Your task to perform on an android device: Search for a 3d printer on aliexpress Image 0: 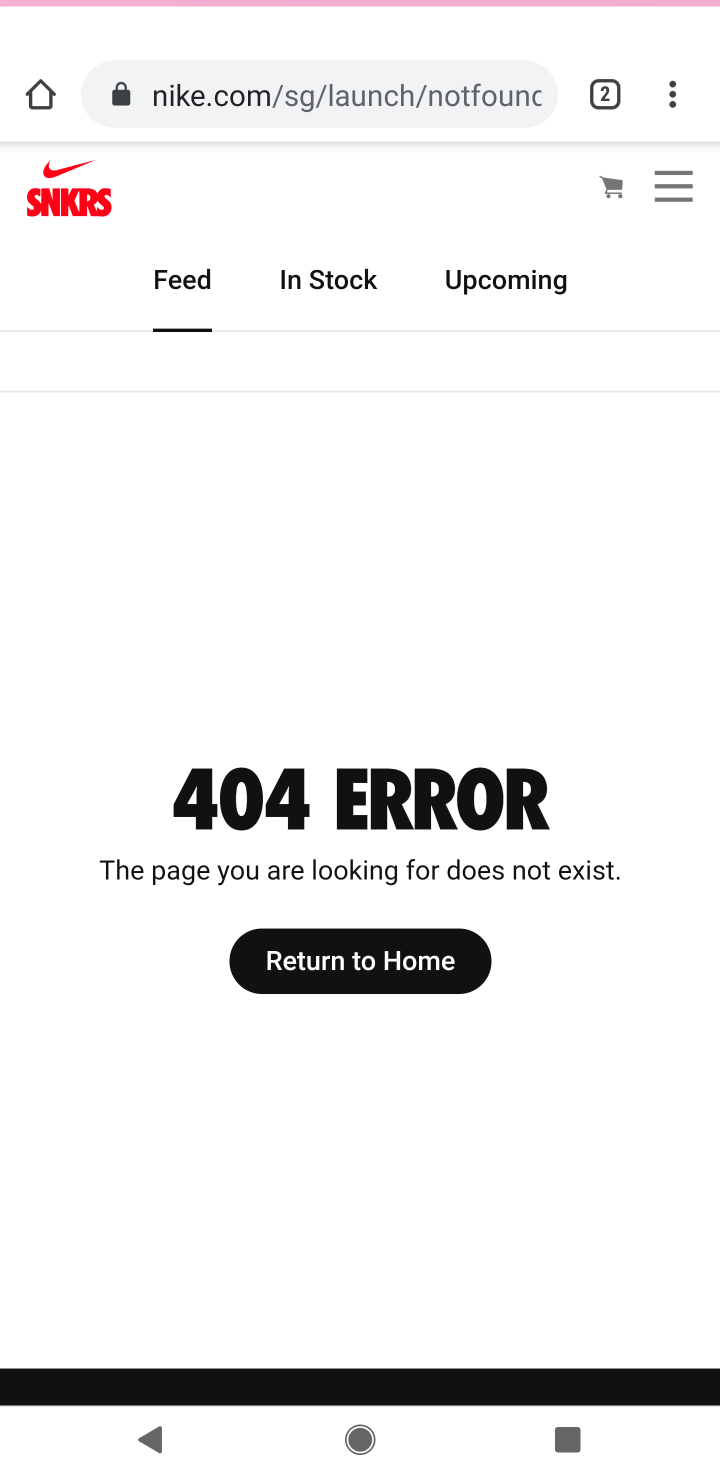
Step 0: press home button
Your task to perform on an android device: Search for a 3d printer on aliexpress Image 1: 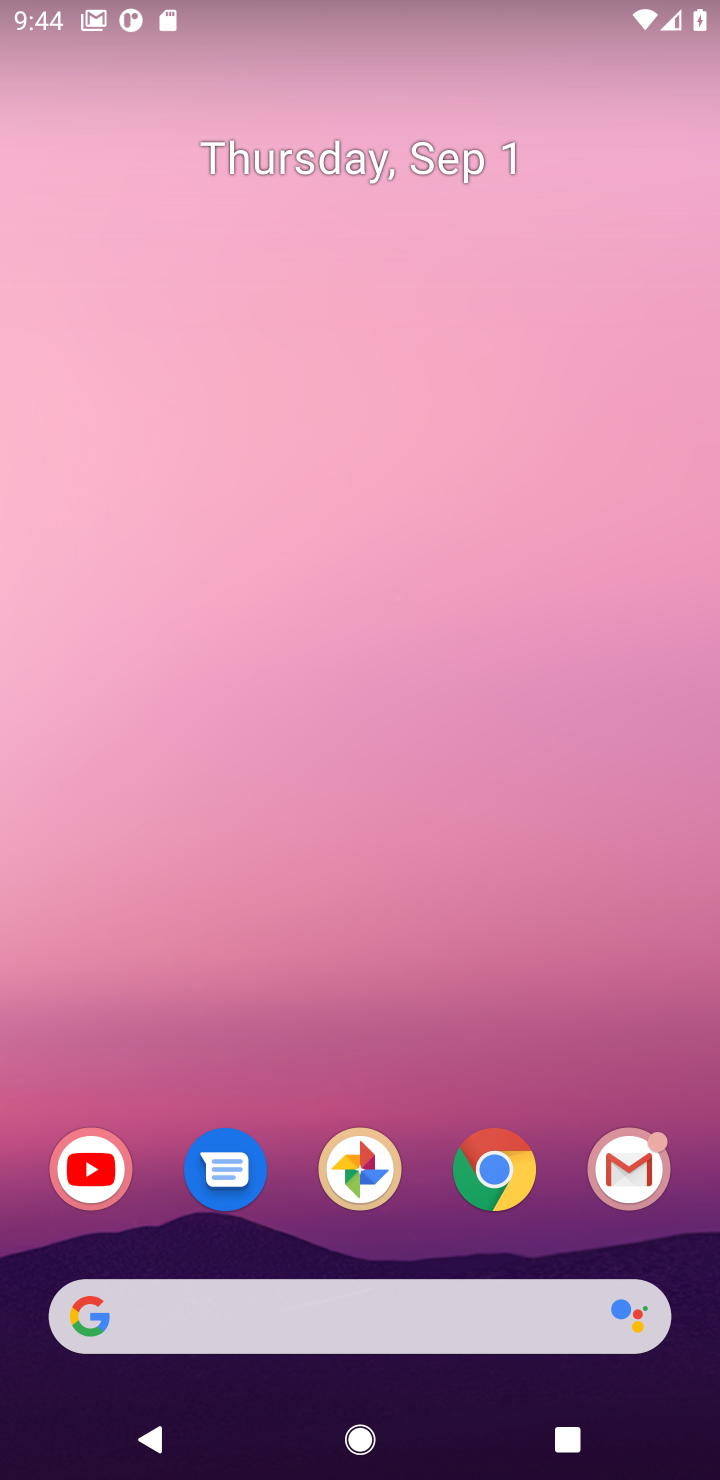
Step 1: drag from (414, 1124) to (474, 77)
Your task to perform on an android device: Search for a 3d printer on aliexpress Image 2: 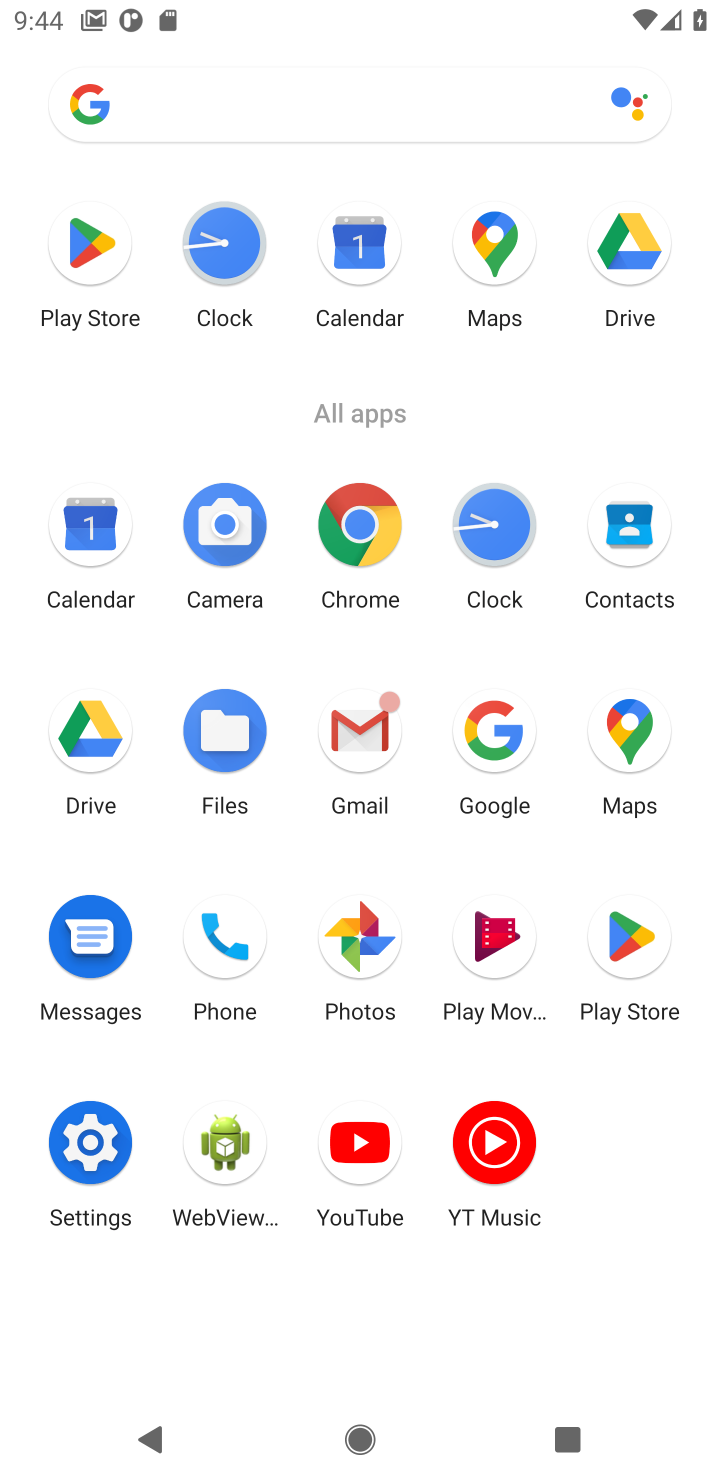
Step 2: click (361, 520)
Your task to perform on an android device: Search for a 3d printer on aliexpress Image 3: 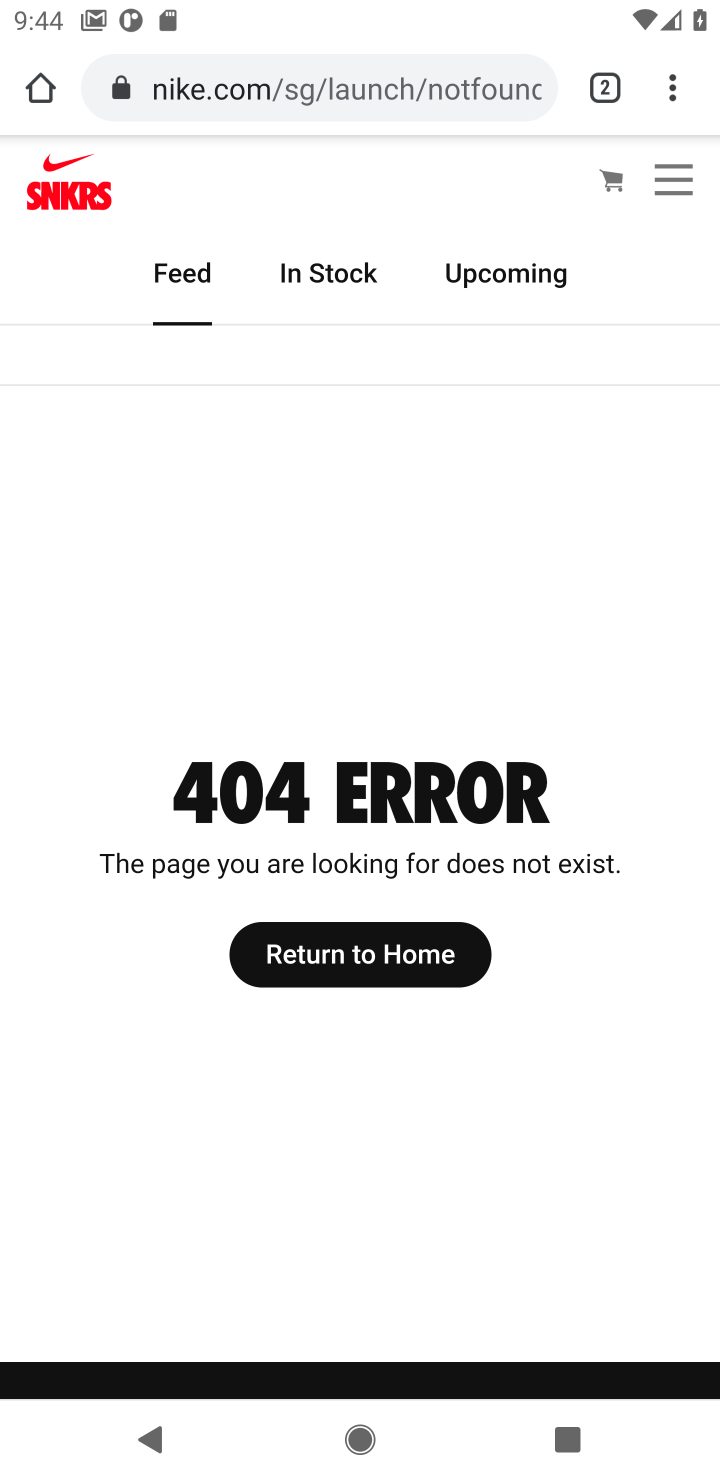
Step 3: click (431, 96)
Your task to perform on an android device: Search for a 3d printer on aliexpress Image 4: 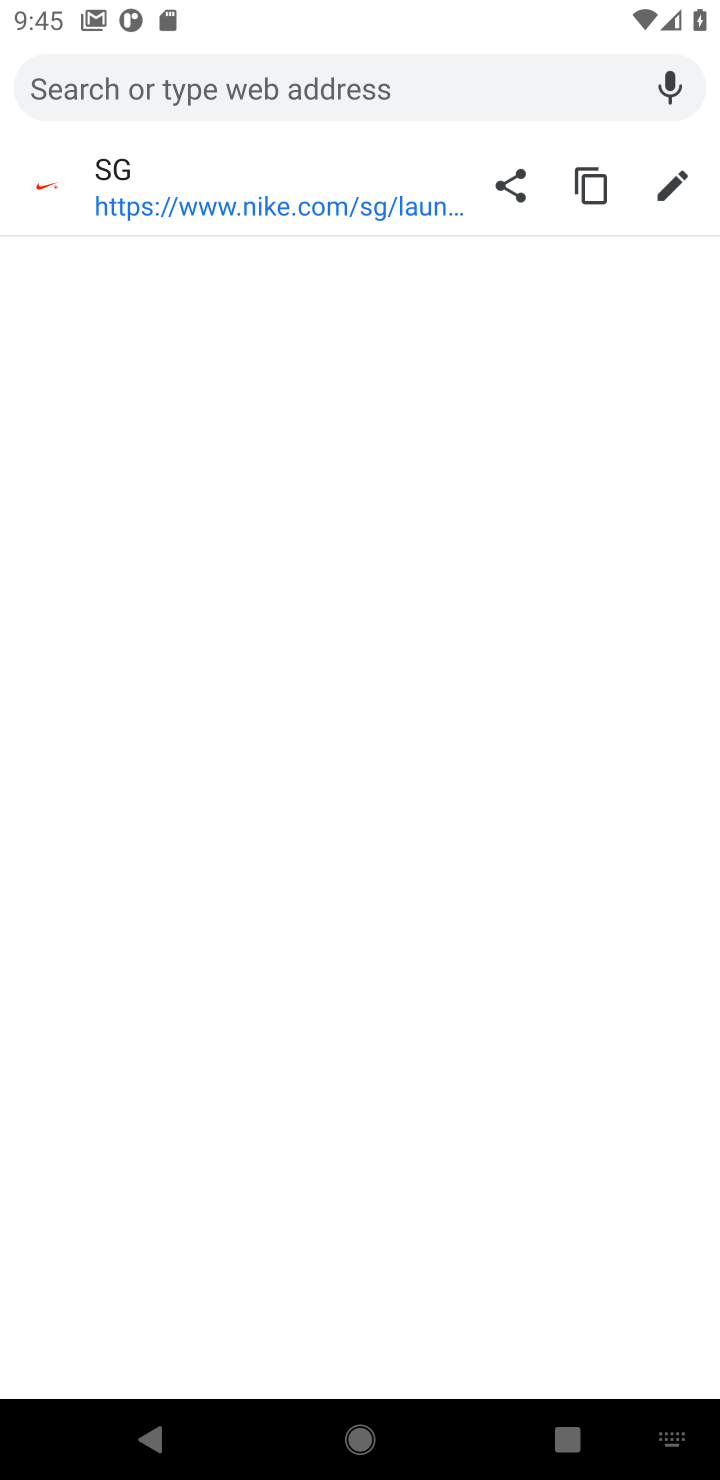
Step 4: type "3d printer on aliexpress"
Your task to perform on an android device: Search for a 3d printer on aliexpress Image 5: 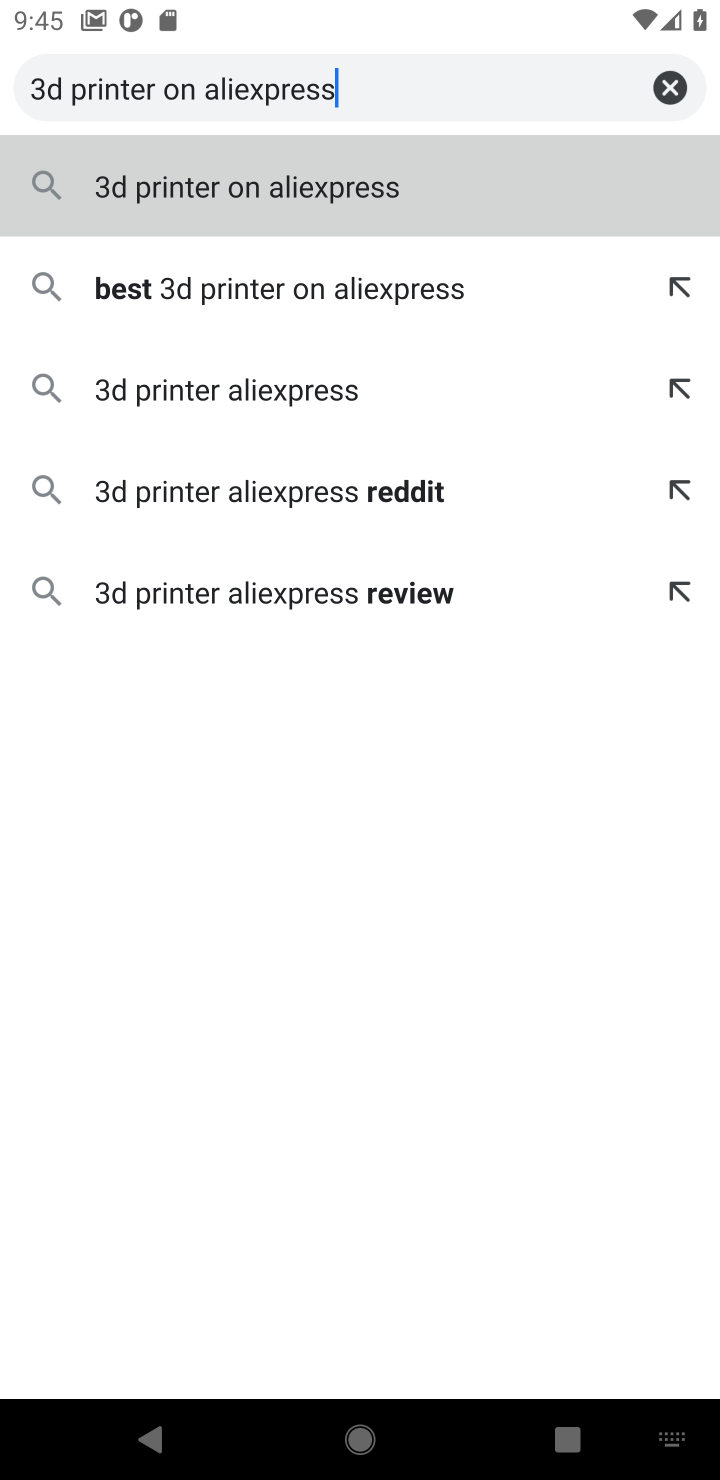
Step 5: click (315, 214)
Your task to perform on an android device: Search for a 3d printer on aliexpress Image 6: 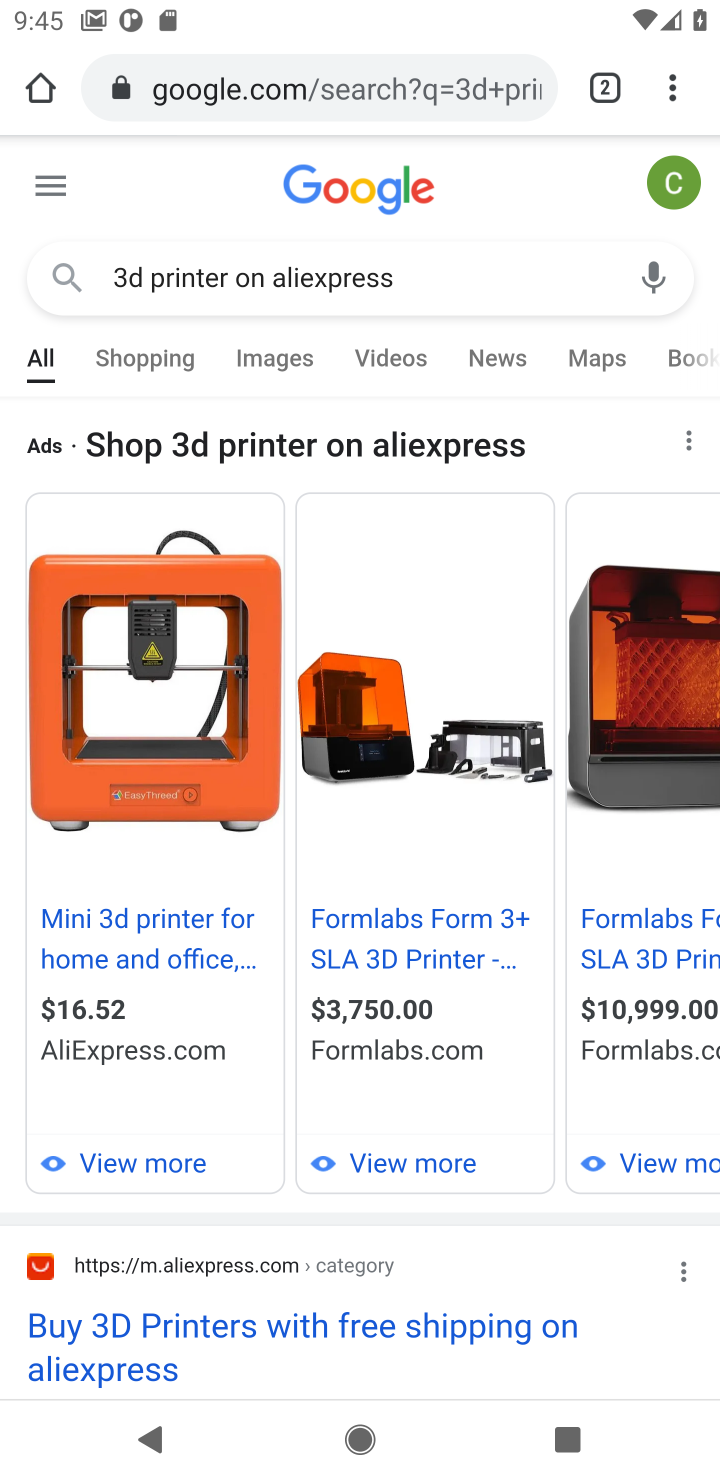
Step 6: drag from (286, 1215) to (444, 365)
Your task to perform on an android device: Search for a 3d printer on aliexpress Image 7: 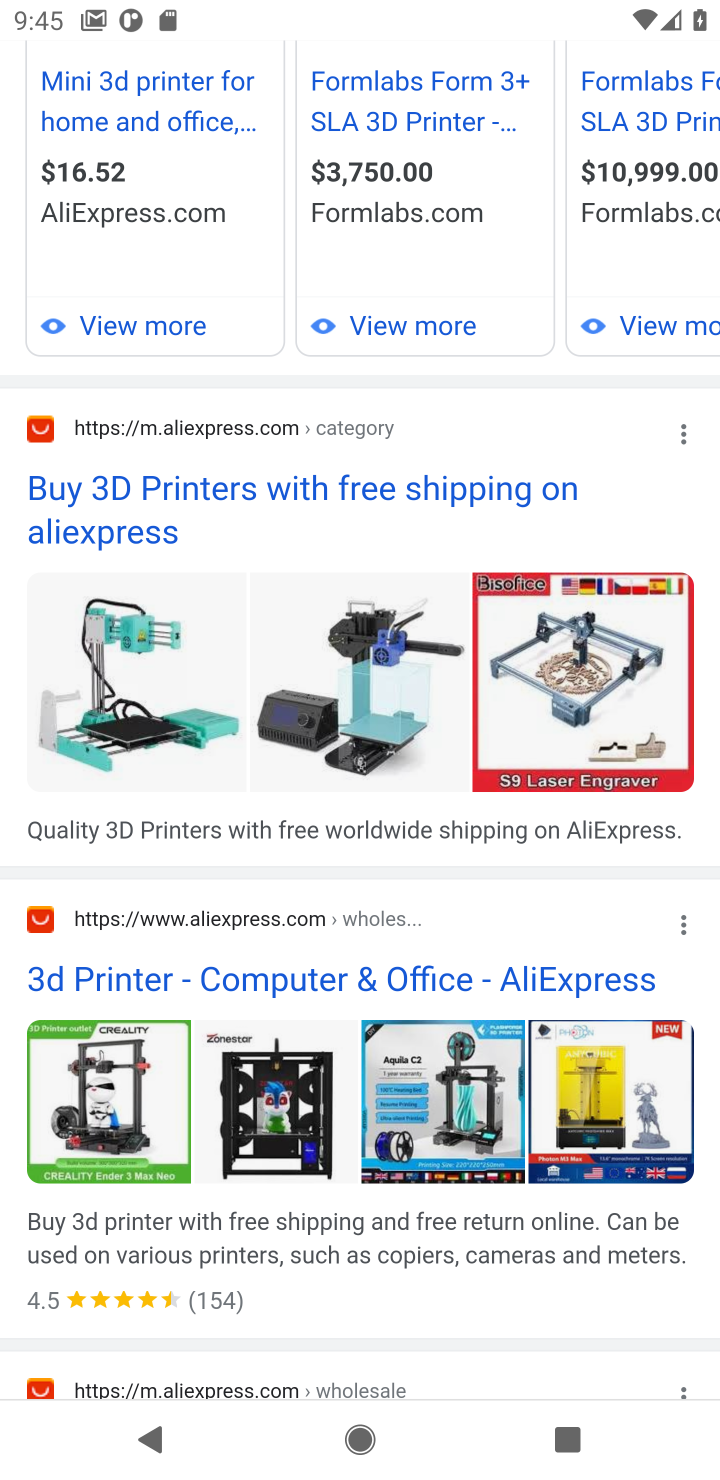
Step 7: click (275, 486)
Your task to perform on an android device: Search for a 3d printer on aliexpress Image 8: 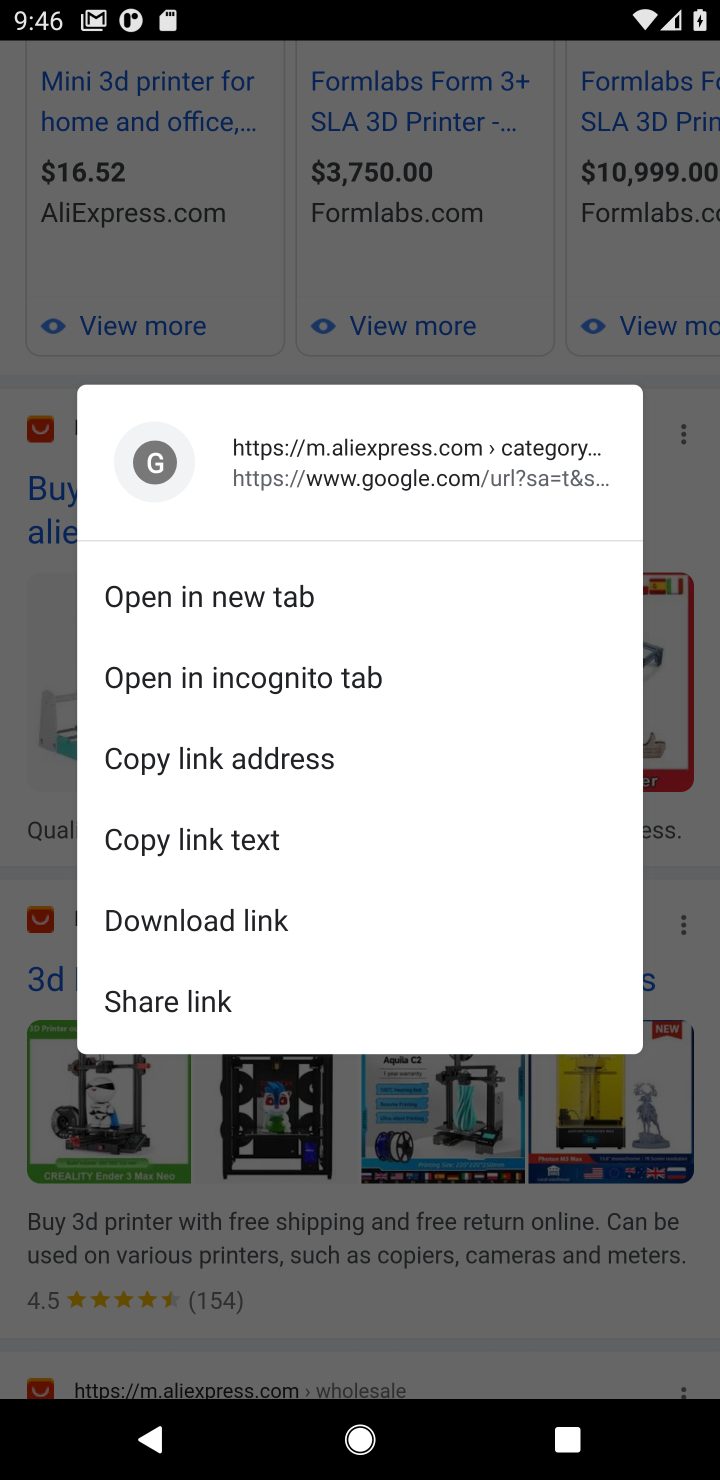
Step 8: click (27, 400)
Your task to perform on an android device: Search for a 3d printer on aliexpress Image 9: 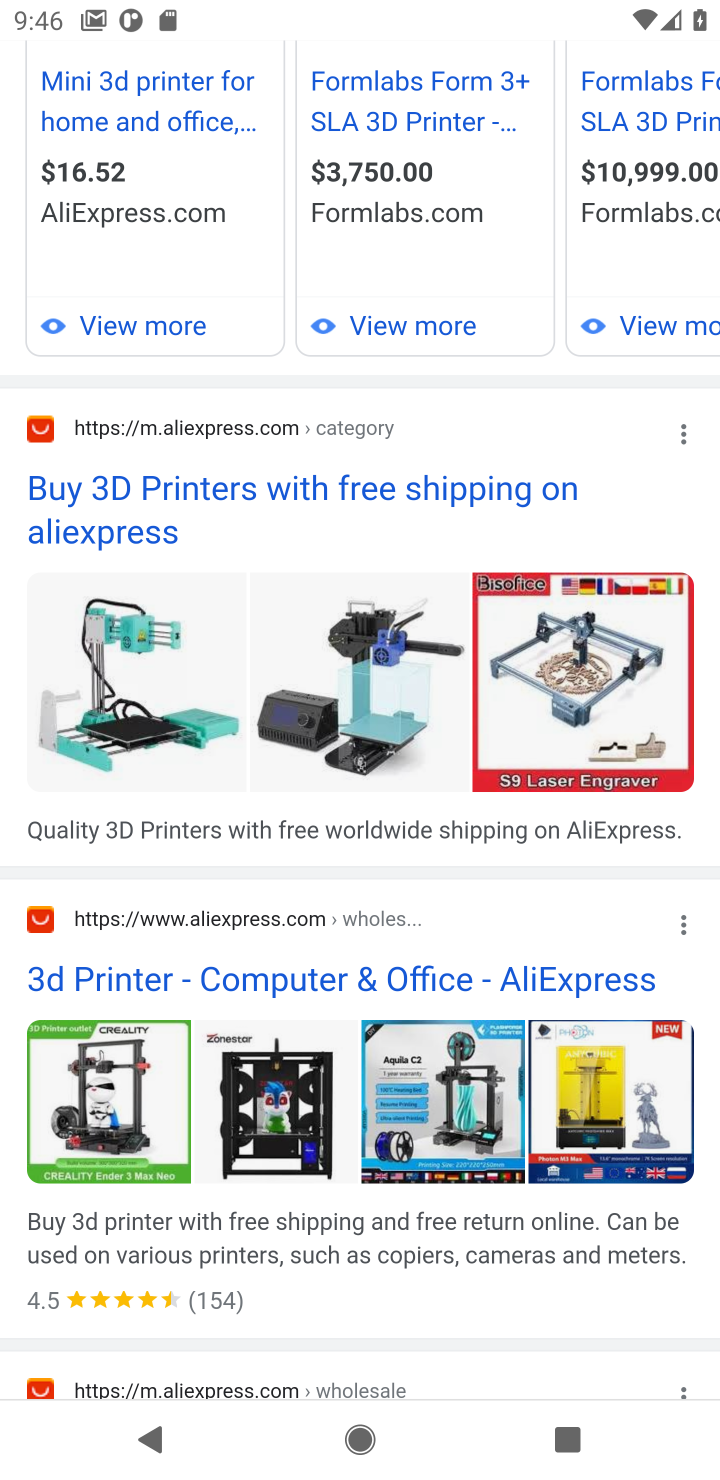
Step 9: click (176, 489)
Your task to perform on an android device: Search for a 3d printer on aliexpress Image 10: 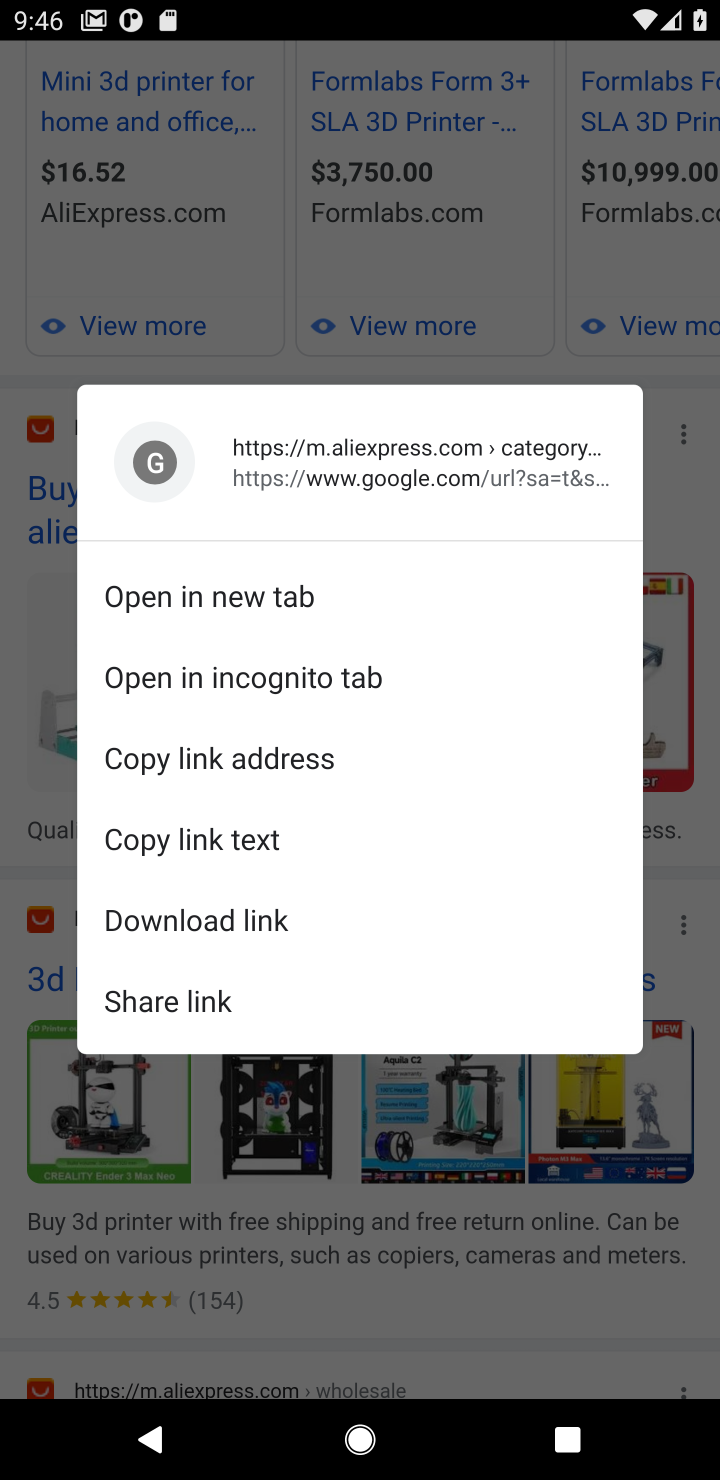
Step 10: click (6, 684)
Your task to perform on an android device: Search for a 3d printer on aliexpress Image 11: 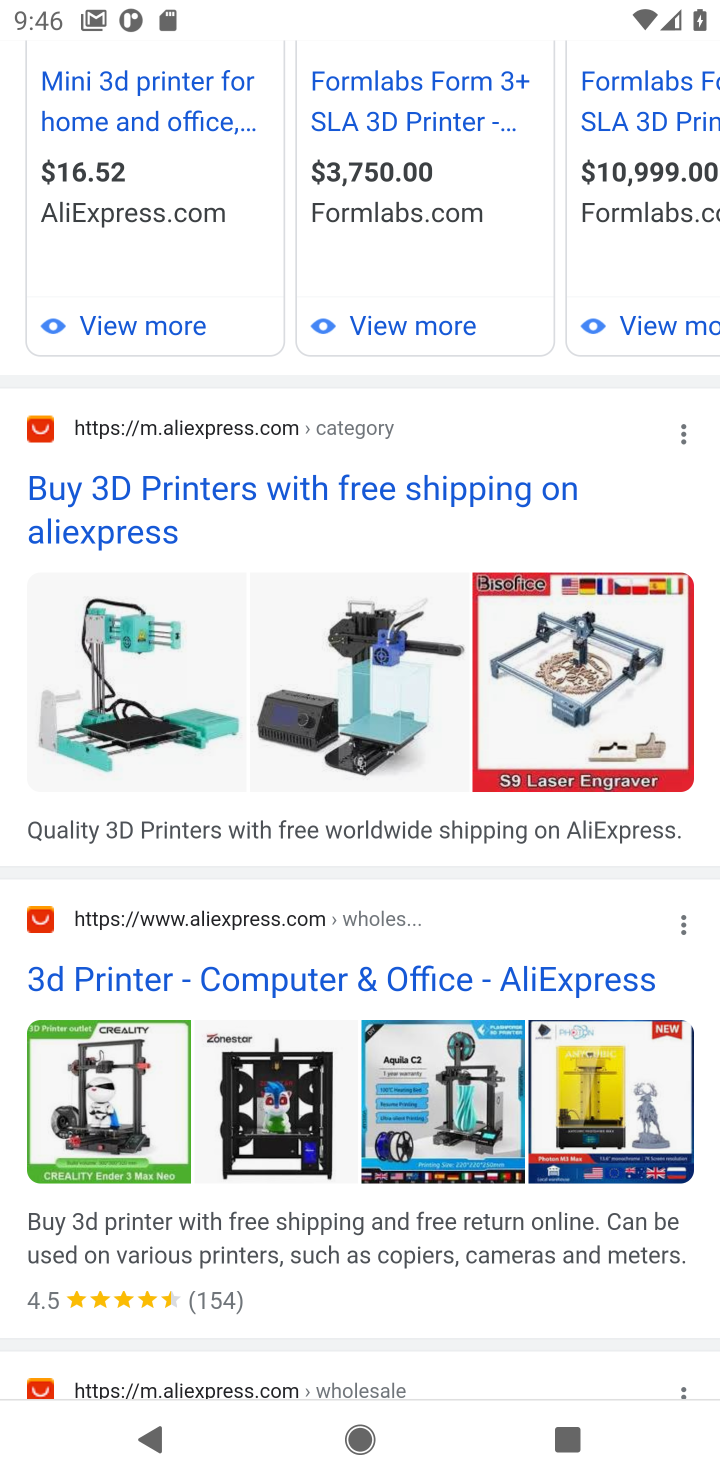
Step 11: click (95, 535)
Your task to perform on an android device: Search for a 3d printer on aliexpress Image 12: 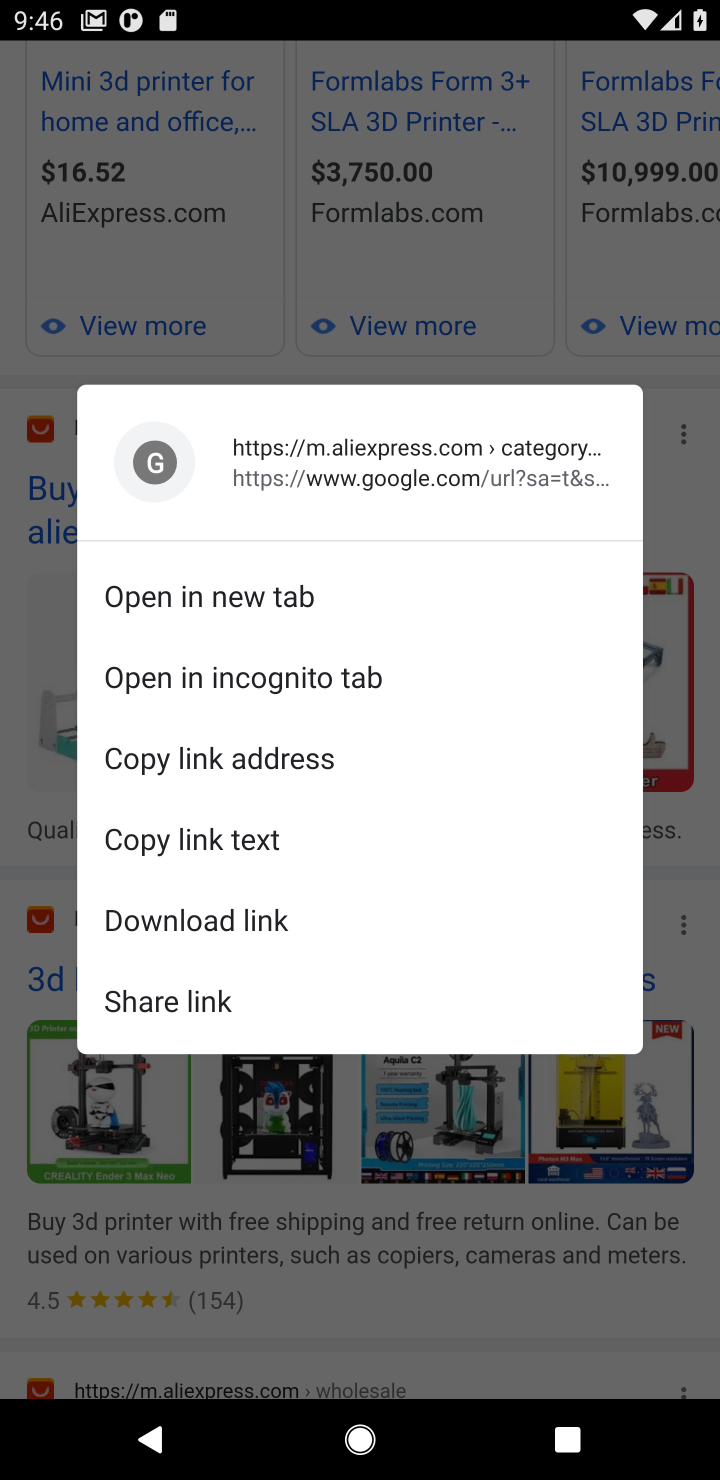
Step 12: click (8, 800)
Your task to perform on an android device: Search for a 3d printer on aliexpress Image 13: 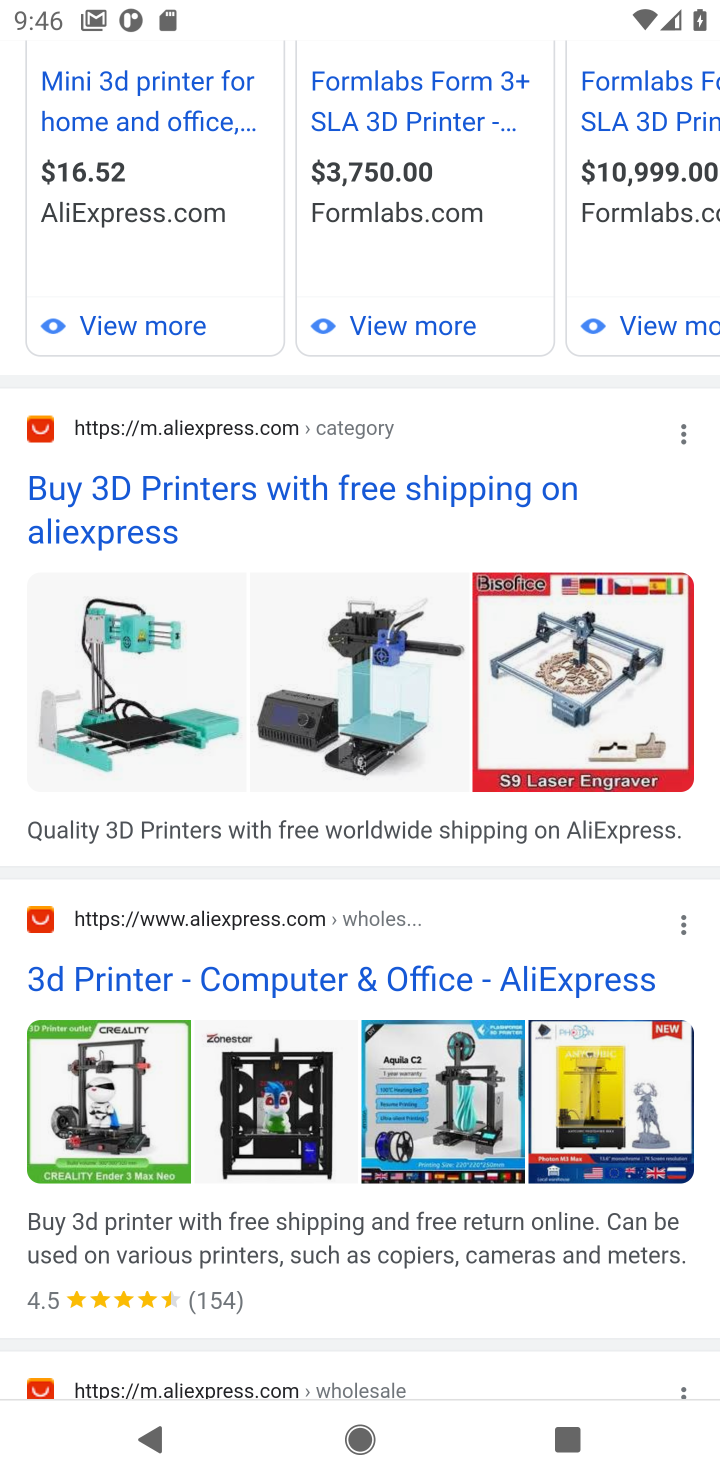
Step 13: click (82, 489)
Your task to perform on an android device: Search for a 3d printer on aliexpress Image 14: 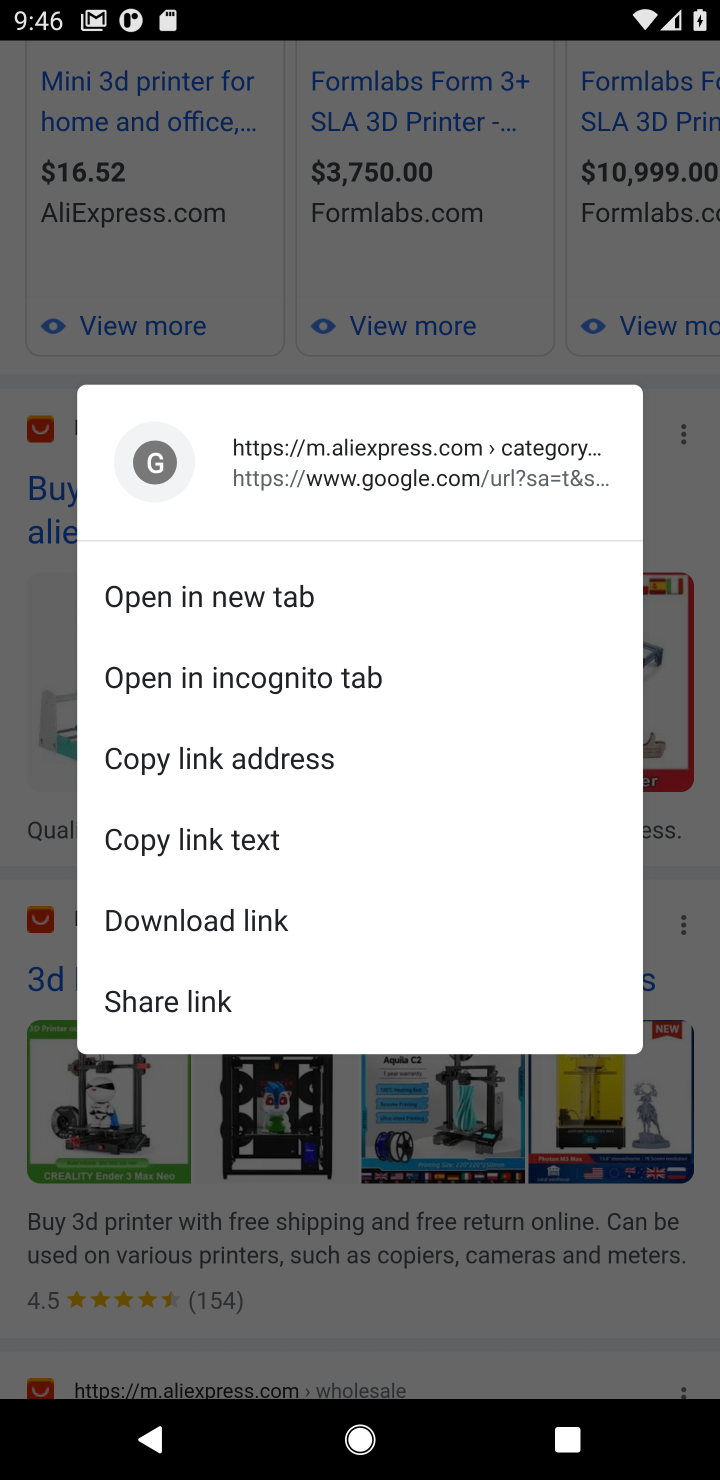
Step 14: click (259, 591)
Your task to perform on an android device: Search for a 3d printer on aliexpress Image 15: 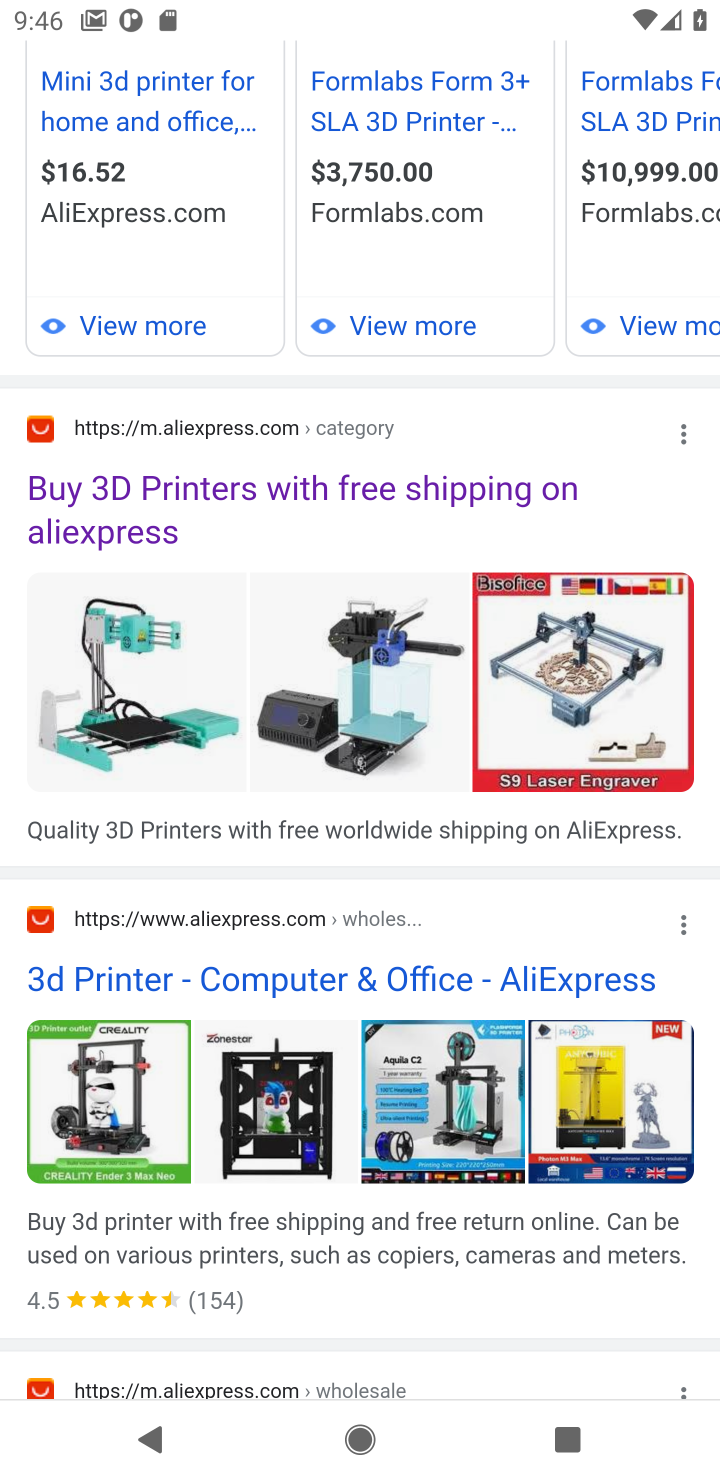
Step 15: click (279, 989)
Your task to perform on an android device: Search for a 3d printer on aliexpress Image 16: 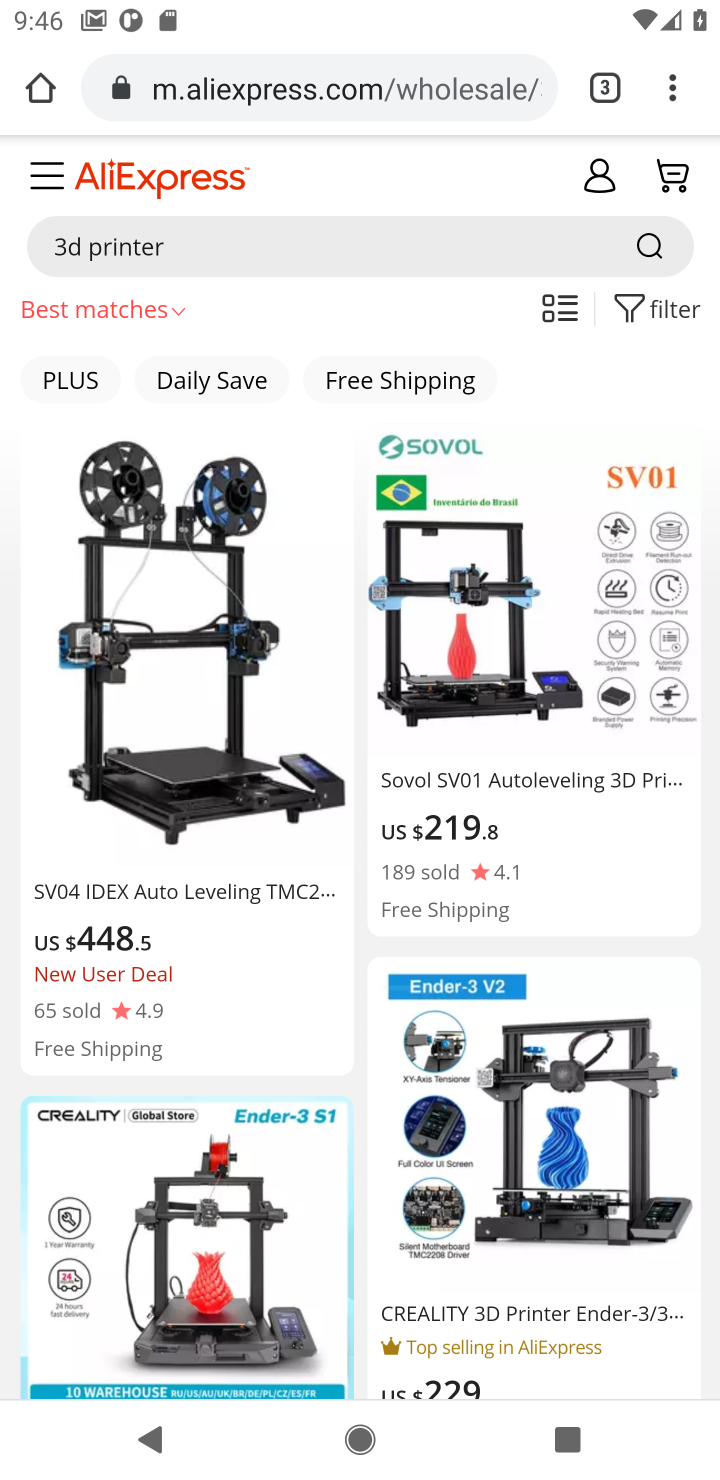
Step 16: drag from (361, 1174) to (409, 545)
Your task to perform on an android device: Search for a 3d printer on aliexpress Image 17: 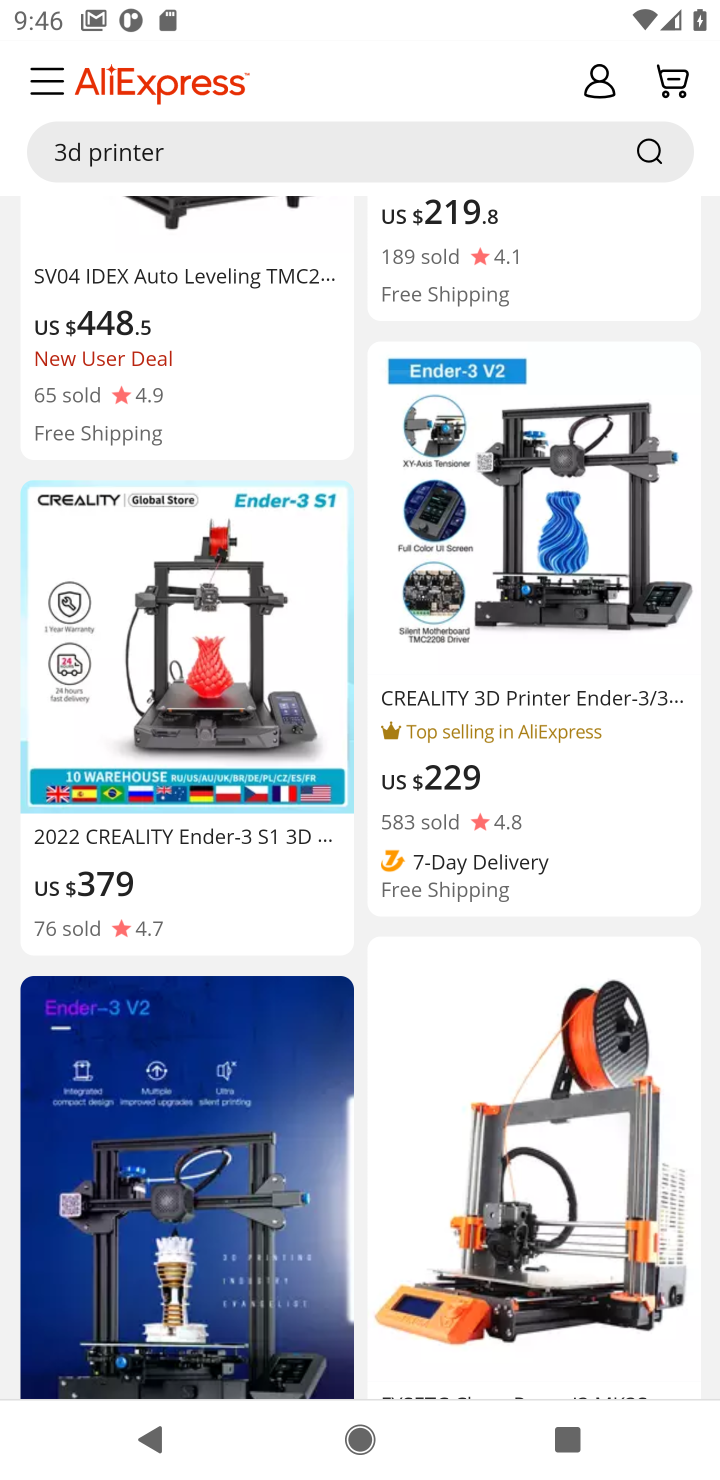
Step 17: drag from (371, 1243) to (464, 482)
Your task to perform on an android device: Search for a 3d printer on aliexpress Image 18: 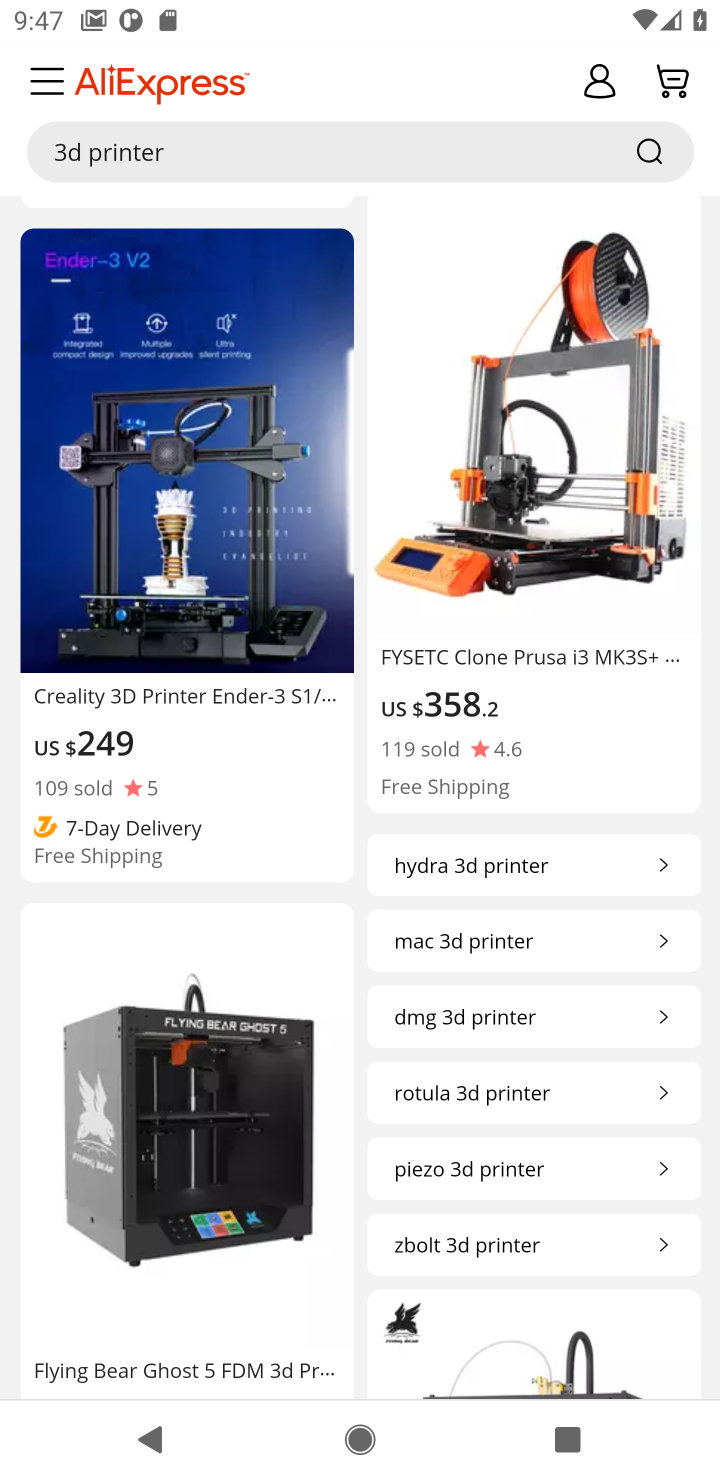
Step 18: drag from (361, 1276) to (381, 579)
Your task to perform on an android device: Search for a 3d printer on aliexpress Image 19: 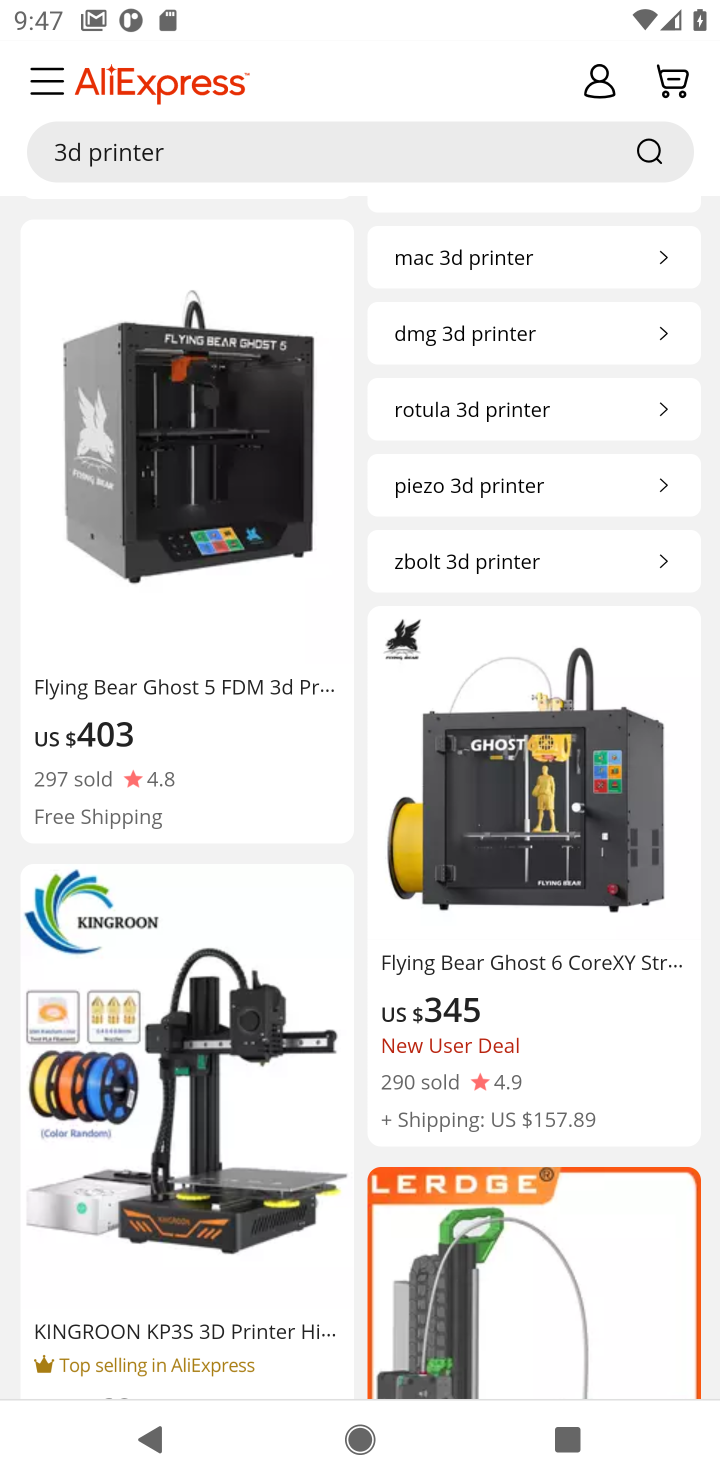
Step 19: drag from (370, 1158) to (376, 500)
Your task to perform on an android device: Search for a 3d printer on aliexpress Image 20: 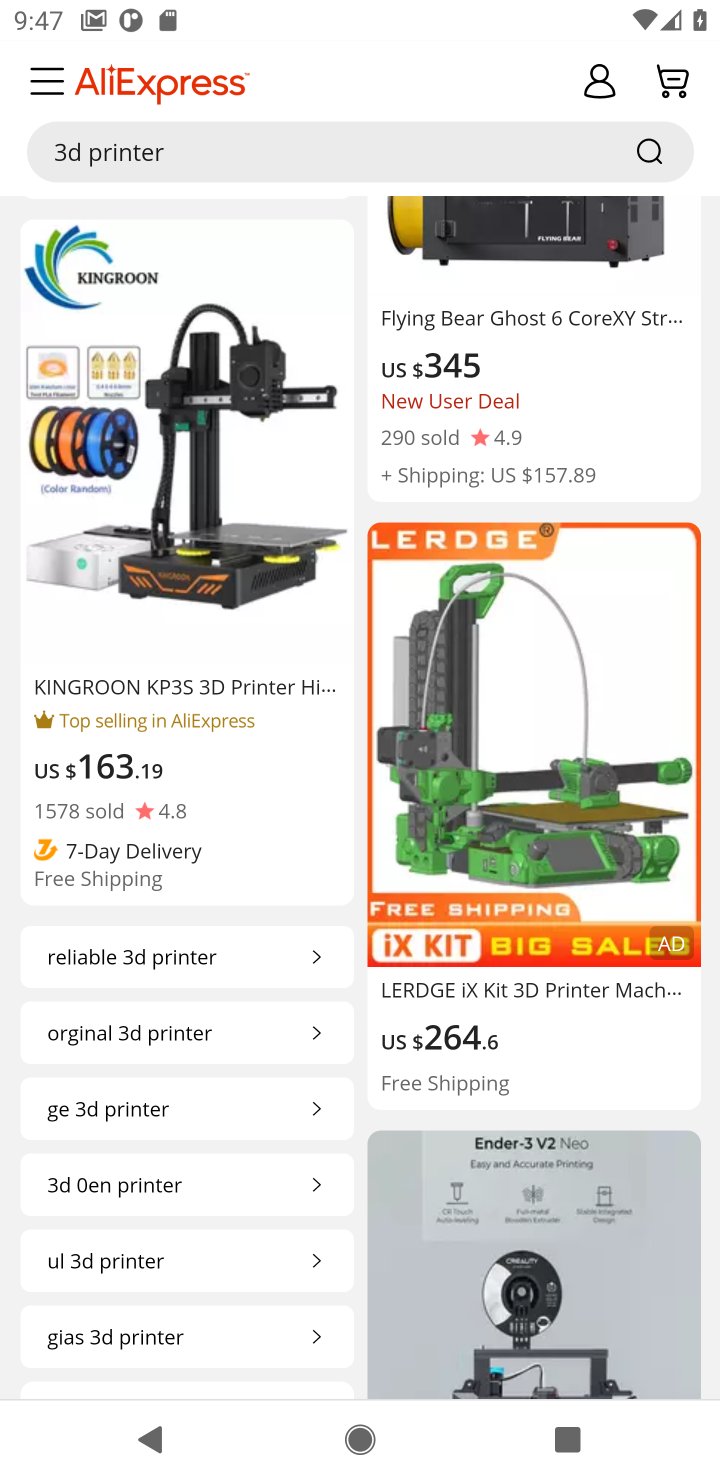
Step 20: drag from (374, 1178) to (386, 678)
Your task to perform on an android device: Search for a 3d printer on aliexpress Image 21: 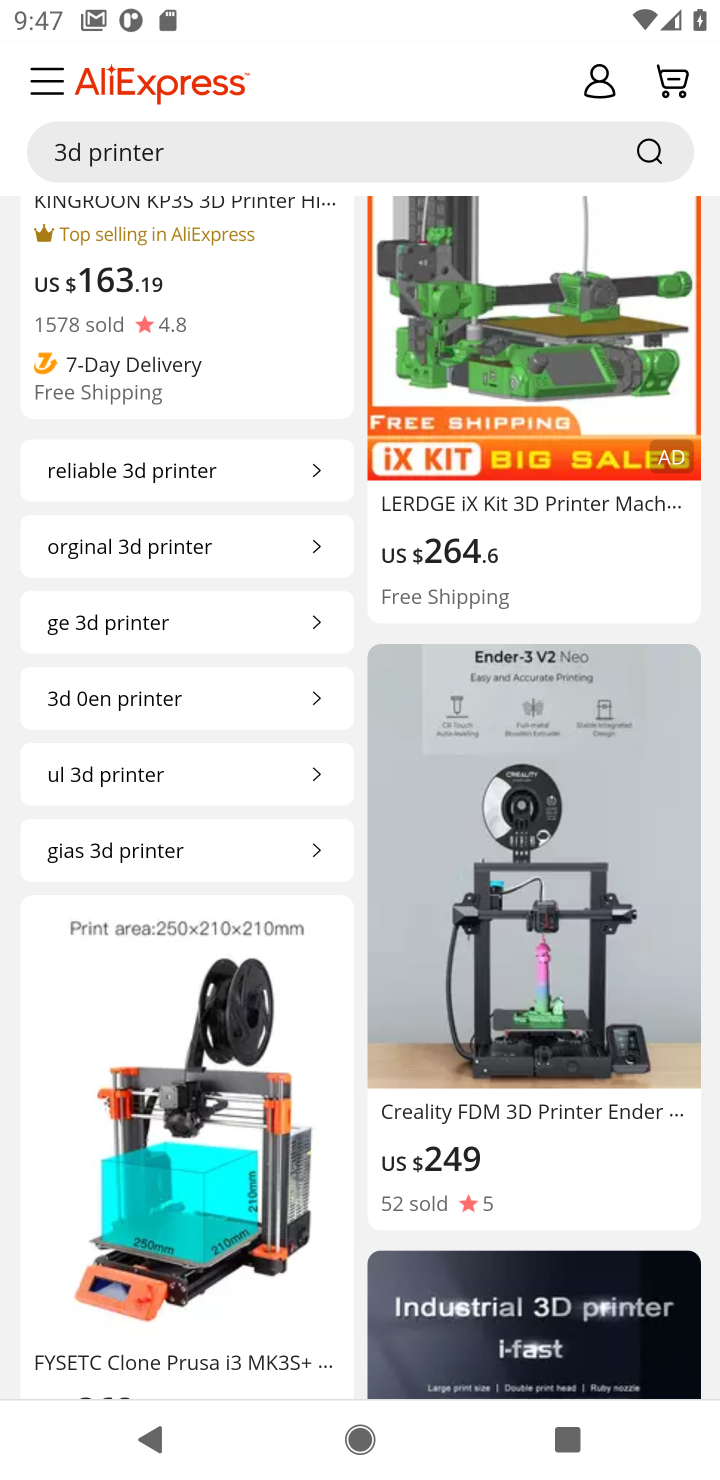
Step 21: drag from (359, 1154) to (365, 565)
Your task to perform on an android device: Search for a 3d printer on aliexpress Image 22: 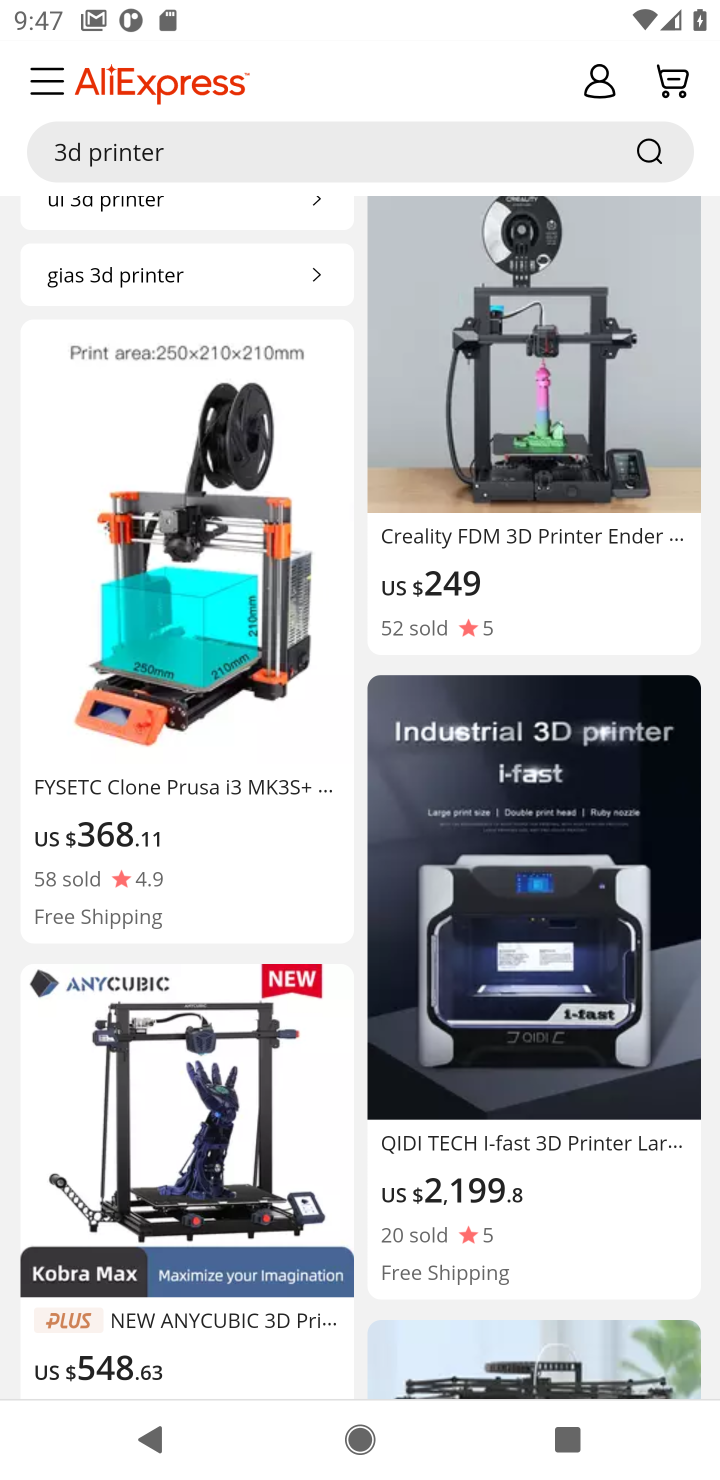
Step 22: drag from (363, 1188) to (381, 715)
Your task to perform on an android device: Search for a 3d printer on aliexpress Image 23: 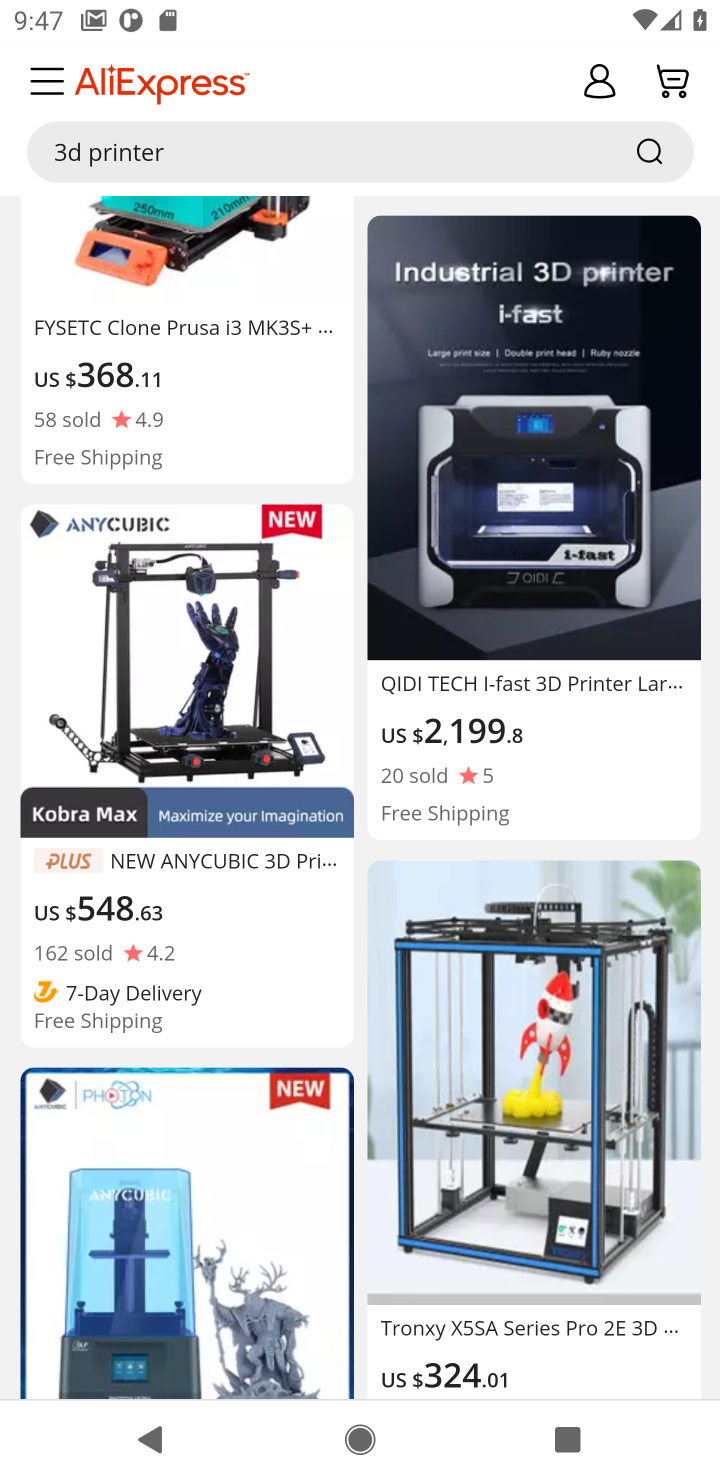
Step 23: drag from (368, 1291) to (445, 547)
Your task to perform on an android device: Search for a 3d printer on aliexpress Image 24: 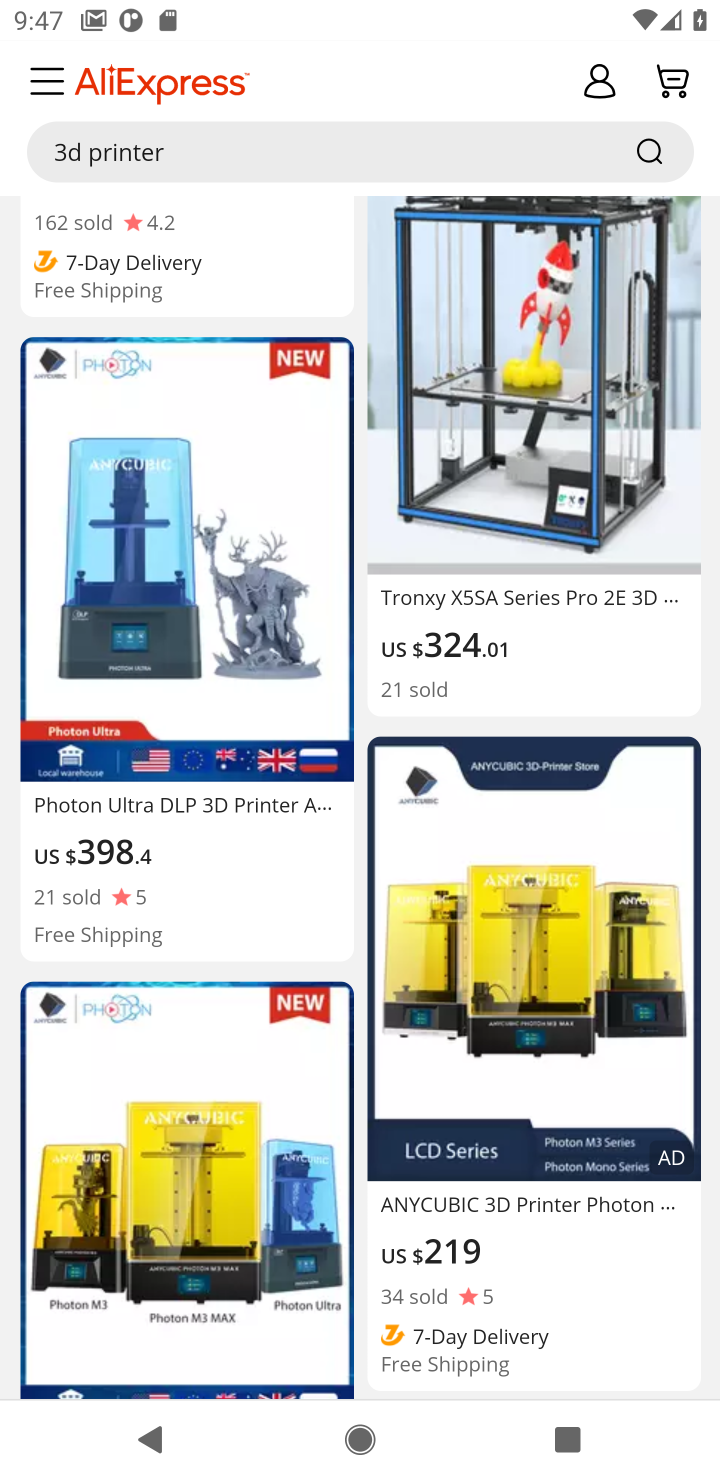
Step 24: drag from (392, 1074) to (448, 609)
Your task to perform on an android device: Search for a 3d printer on aliexpress Image 25: 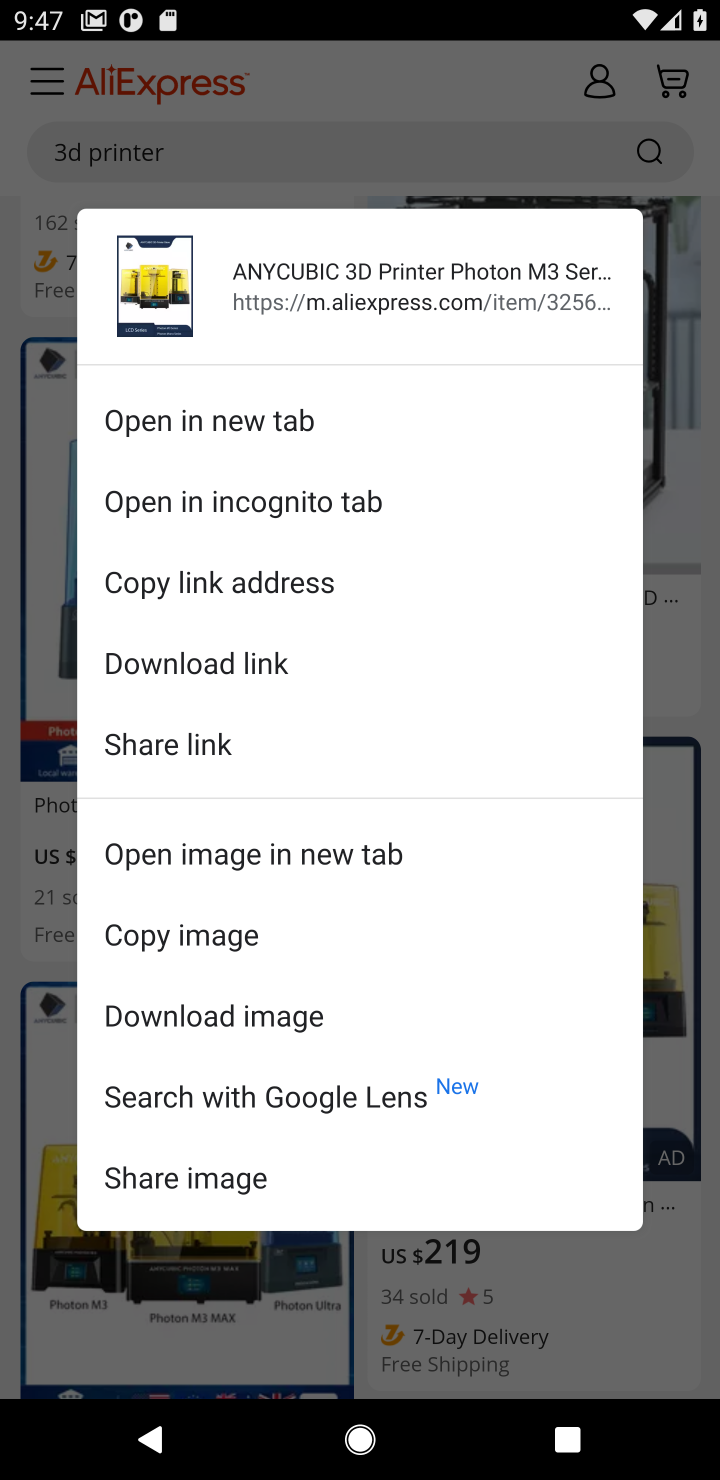
Step 25: click (592, 1387)
Your task to perform on an android device: Search for a 3d printer on aliexpress Image 26: 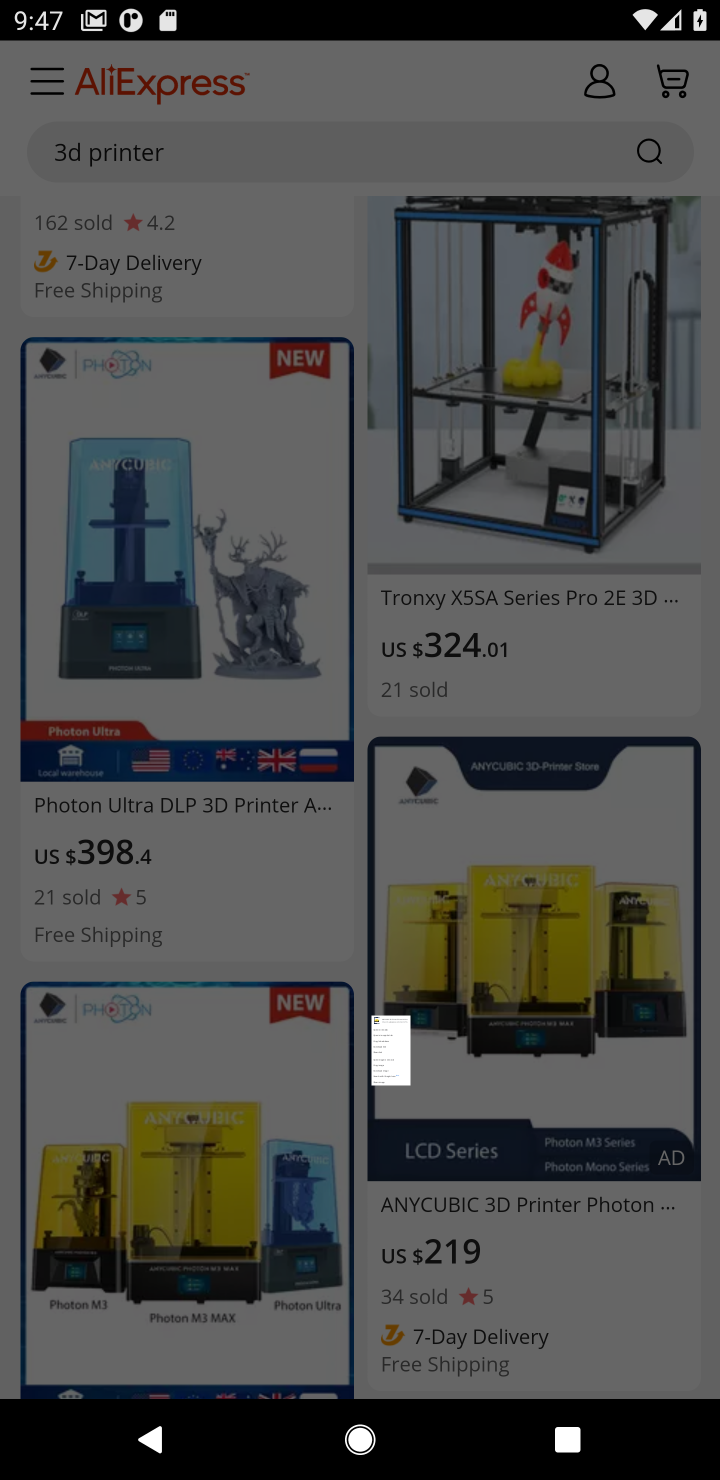
Step 26: task complete